Your task to perform on an android device: Open internet settings Image 0: 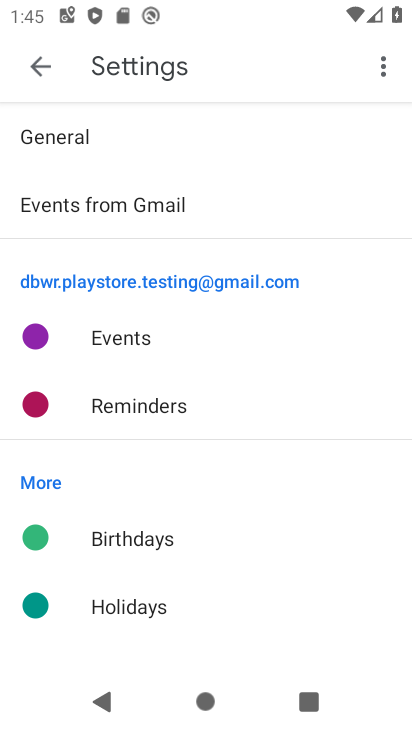
Step 0: press home button
Your task to perform on an android device: Open internet settings Image 1: 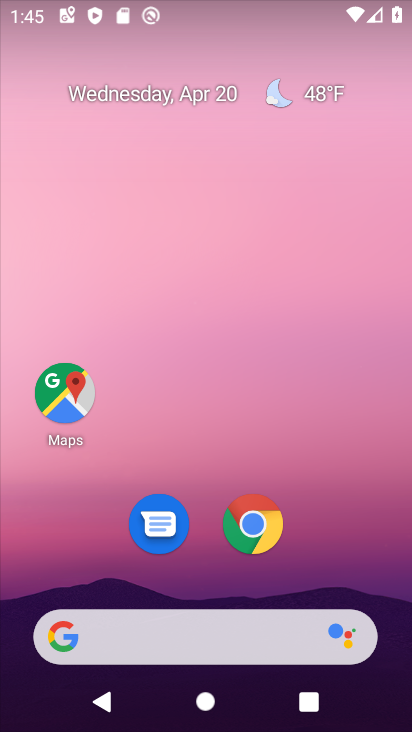
Step 1: drag from (382, 411) to (375, 61)
Your task to perform on an android device: Open internet settings Image 2: 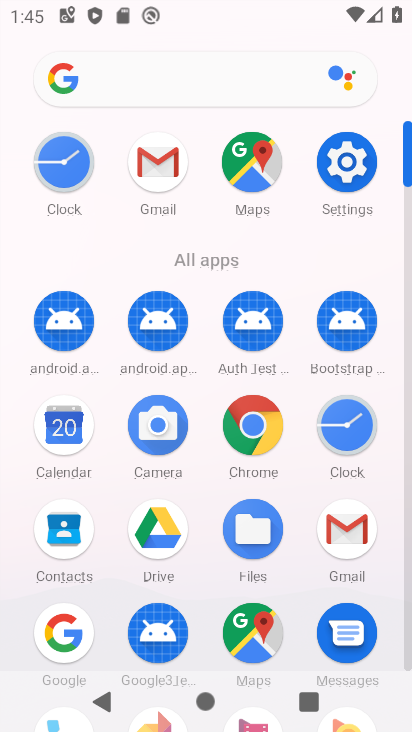
Step 2: click (348, 160)
Your task to perform on an android device: Open internet settings Image 3: 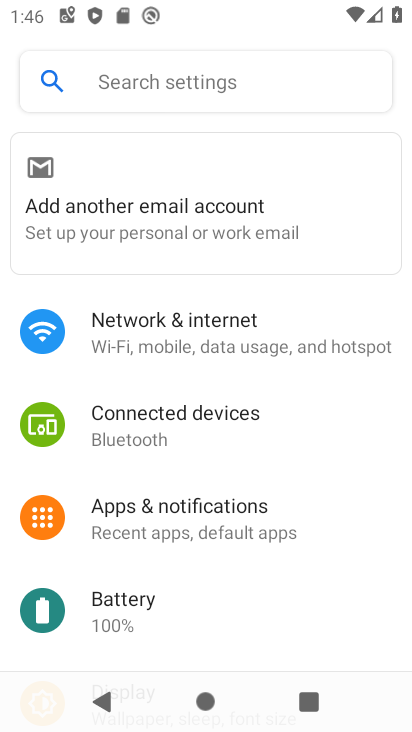
Step 3: click (193, 333)
Your task to perform on an android device: Open internet settings Image 4: 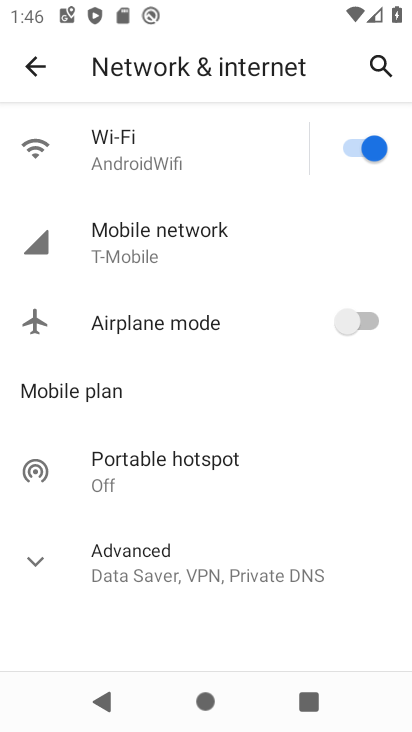
Step 4: task complete